Your task to perform on an android device: Open the stopwatch Image 0: 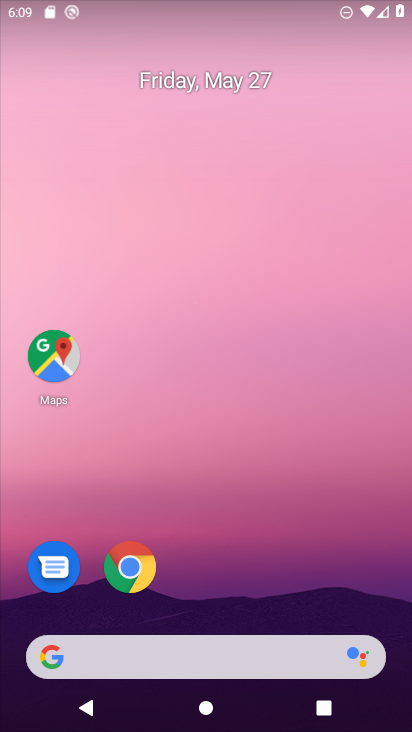
Step 0: drag from (190, 585) to (177, 11)
Your task to perform on an android device: Open the stopwatch Image 1: 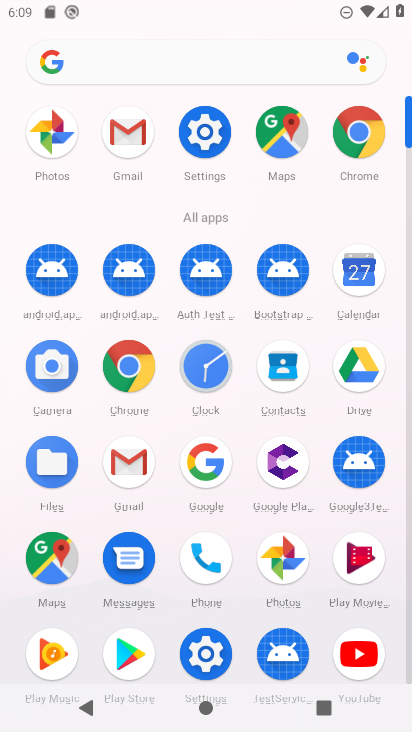
Step 1: click (202, 376)
Your task to perform on an android device: Open the stopwatch Image 2: 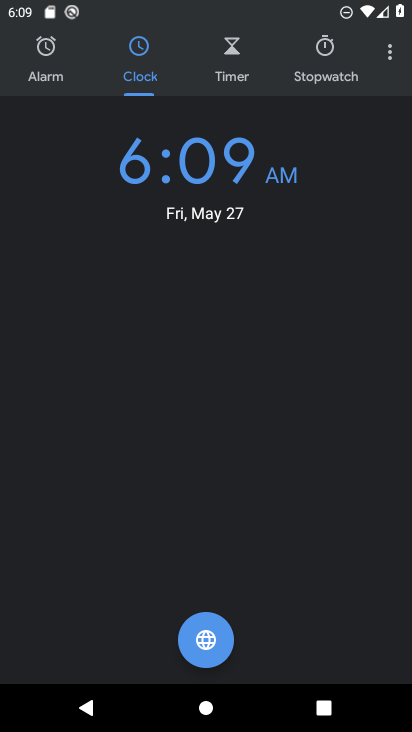
Step 2: click (316, 75)
Your task to perform on an android device: Open the stopwatch Image 3: 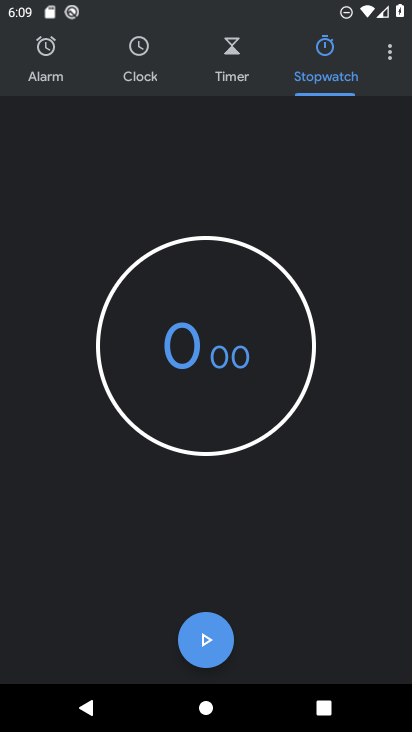
Step 3: task complete